Your task to perform on an android device: Add bose soundsport free to the cart on bestbuy.com Image 0: 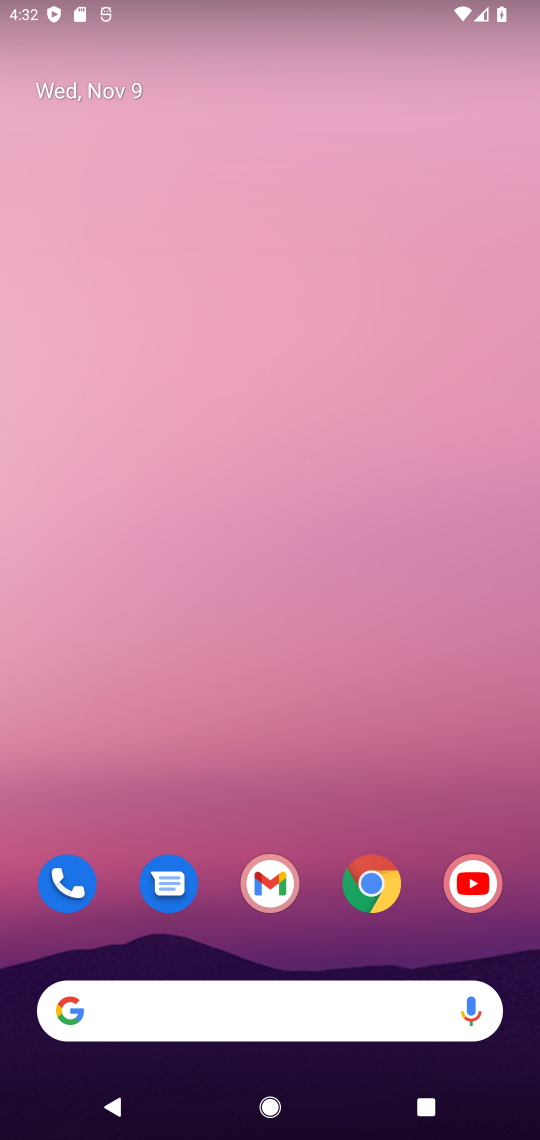
Step 0: click (384, 893)
Your task to perform on an android device: Add bose soundsport free to the cart on bestbuy.com Image 1: 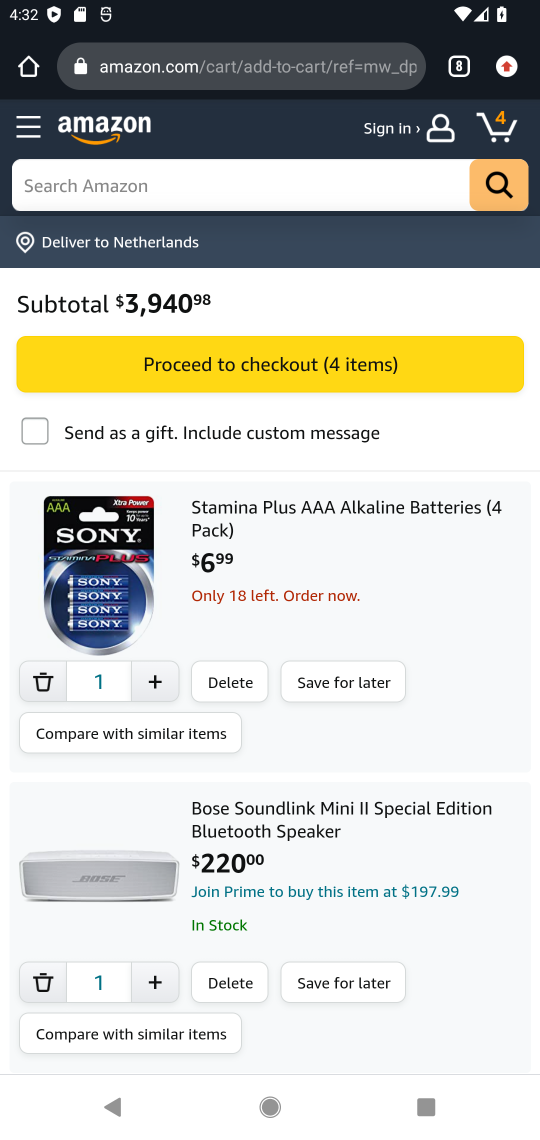
Step 1: click (453, 75)
Your task to perform on an android device: Add bose soundsport free to the cart on bestbuy.com Image 2: 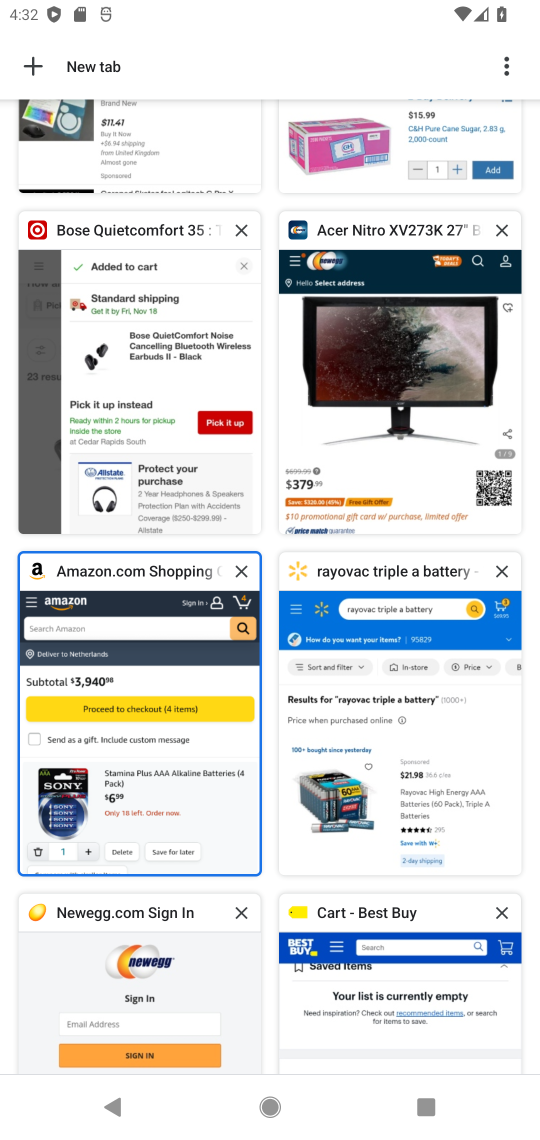
Step 2: click (372, 974)
Your task to perform on an android device: Add bose soundsport free to the cart on bestbuy.com Image 3: 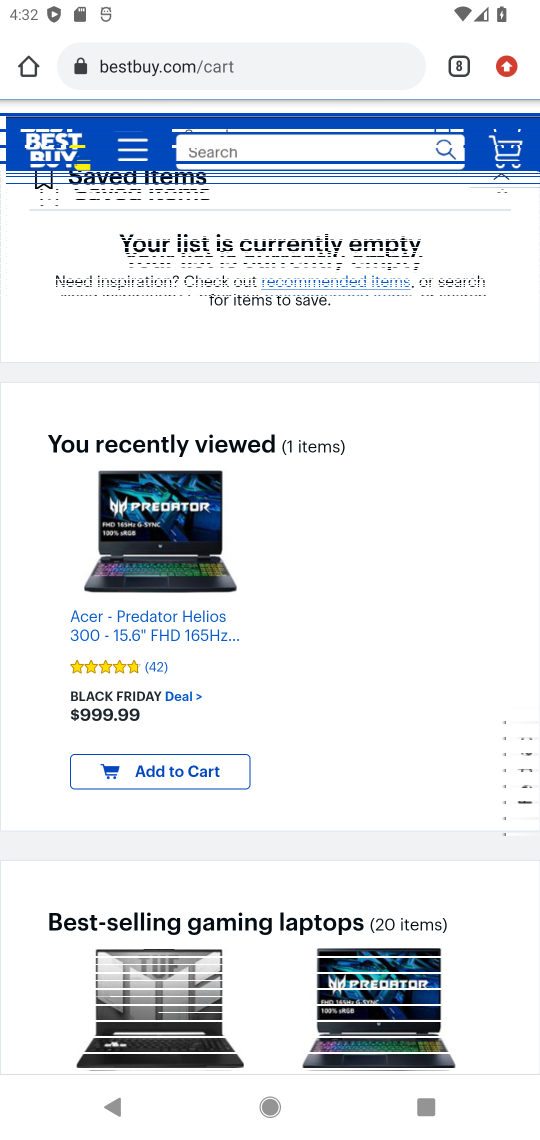
Step 3: click (236, 141)
Your task to perform on an android device: Add bose soundsport free to the cart on bestbuy.com Image 4: 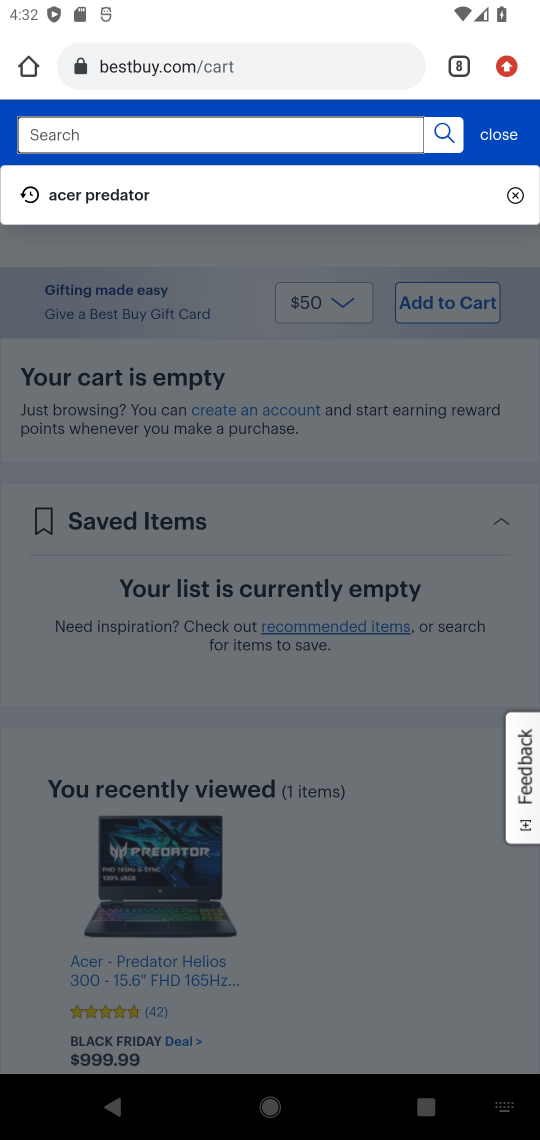
Step 4: type "bose soundsport free "
Your task to perform on an android device: Add bose soundsport free to the cart on bestbuy.com Image 5: 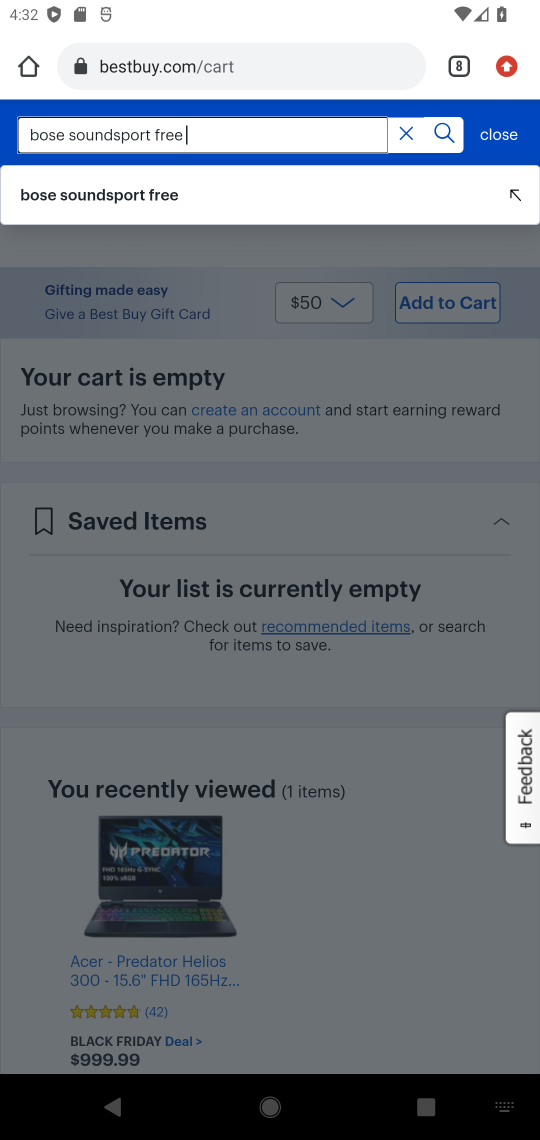
Step 5: click (87, 195)
Your task to perform on an android device: Add bose soundsport free to the cart on bestbuy.com Image 6: 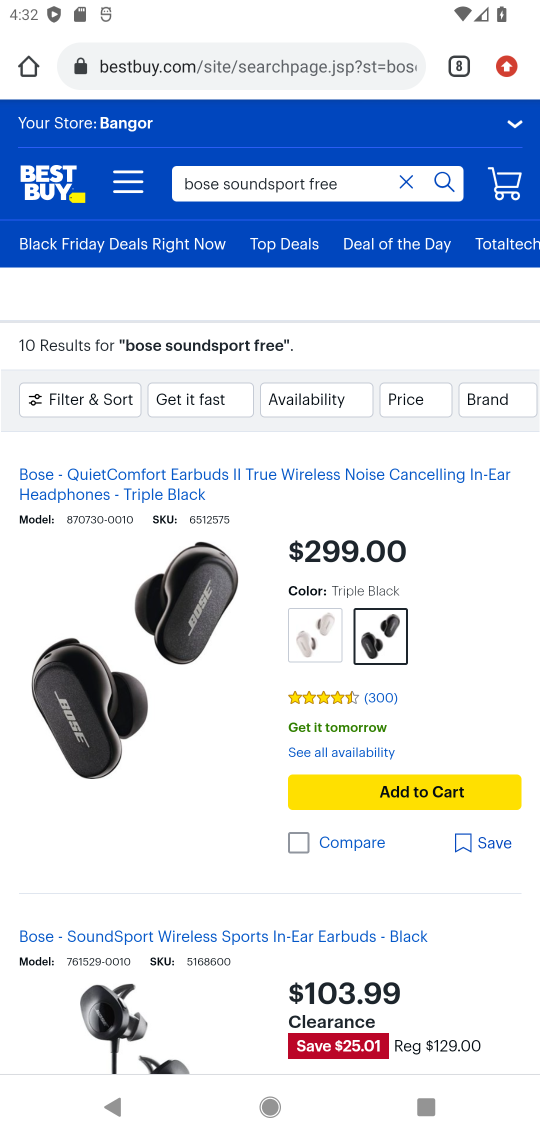
Step 6: click (400, 795)
Your task to perform on an android device: Add bose soundsport free to the cart on bestbuy.com Image 7: 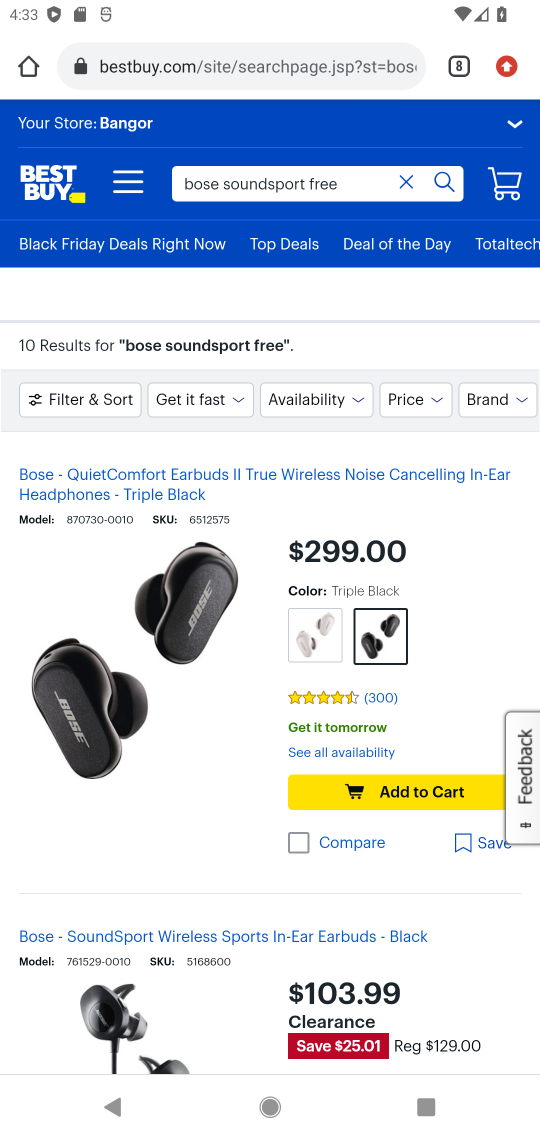
Step 7: click (401, 796)
Your task to perform on an android device: Add bose soundsport free to the cart on bestbuy.com Image 8: 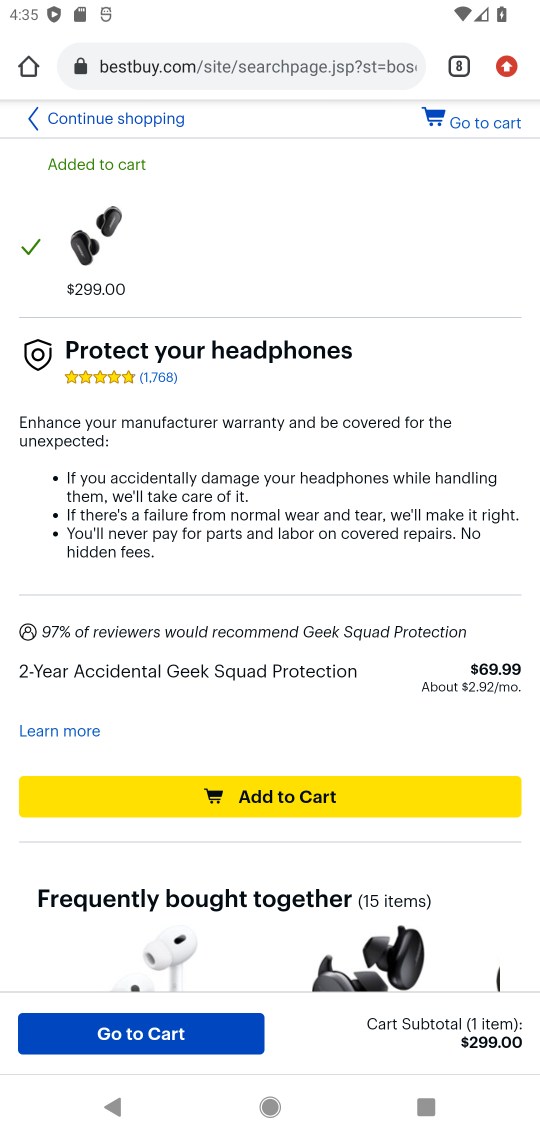
Step 8: task complete